Your task to perform on an android device: Open calendar and show me the fourth week of next month Image 0: 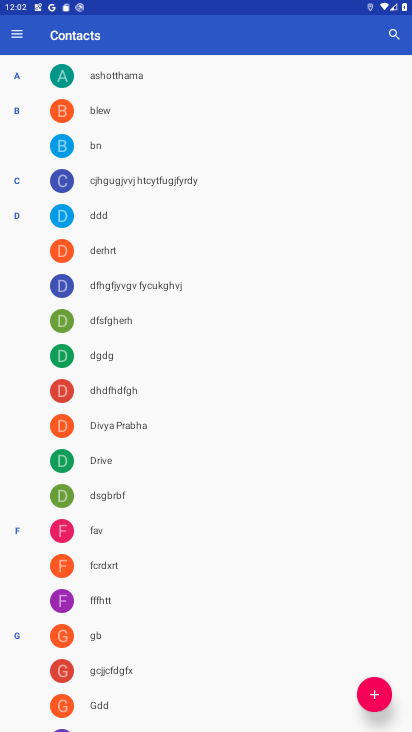
Step 0: press home button
Your task to perform on an android device: Open calendar and show me the fourth week of next month Image 1: 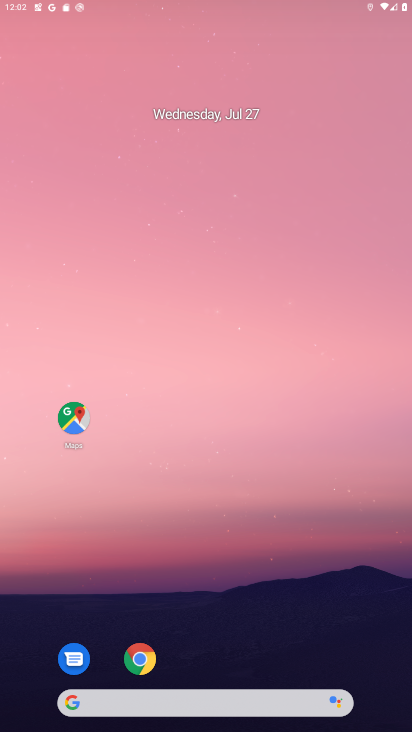
Step 1: drag from (247, 699) to (258, 3)
Your task to perform on an android device: Open calendar and show me the fourth week of next month Image 2: 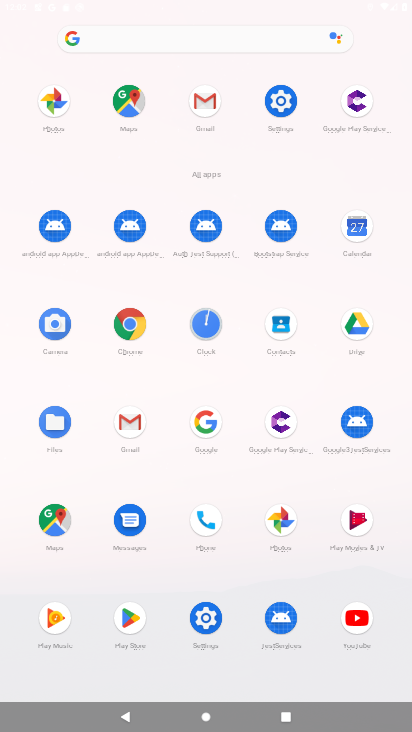
Step 2: click (352, 230)
Your task to perform on an android device: Open calendar and show me the fourth week of next month Image 3: 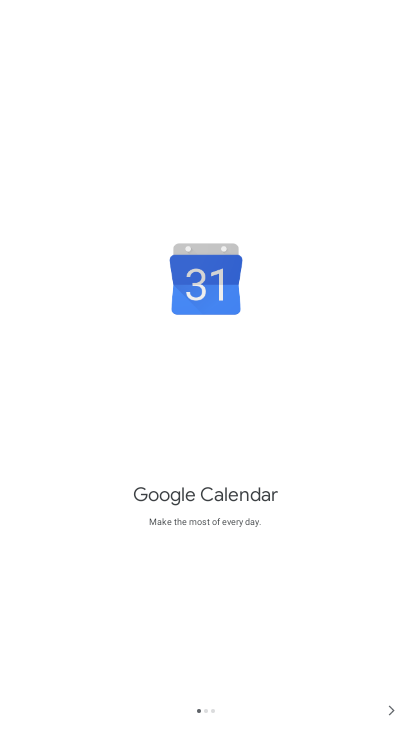
Step 3: click (389, 711)
Your task to perform on an android device: Open calendar and show me the fourth week of next month Image 4: 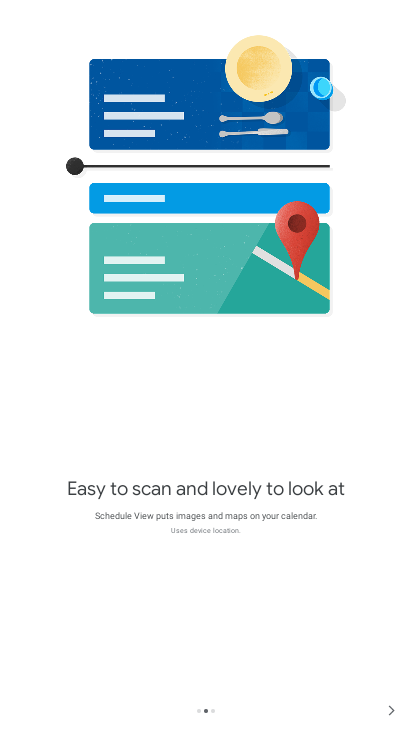
Step 4: click (389, 711)
Your task to perform on an android device: Open calendar and show me the fourth week of next month Image 5: 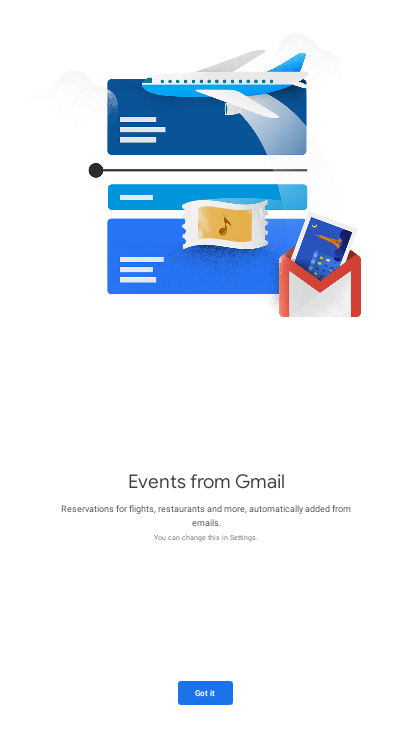
Step 5: click (218, 690)
Your task to perform on an android device: Open calendar and show me the fourth week of next month Image 6: 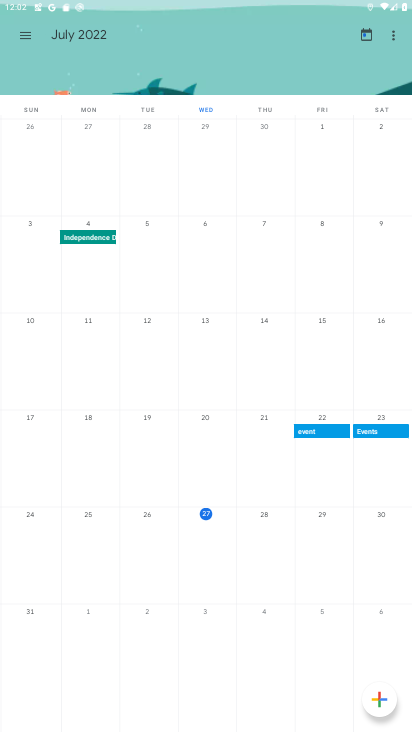
Step 6: drag from (368, 350) to (17, 349)
Your task to perform on an android device: Open calendar and show me the fourth week of next month Image 7: 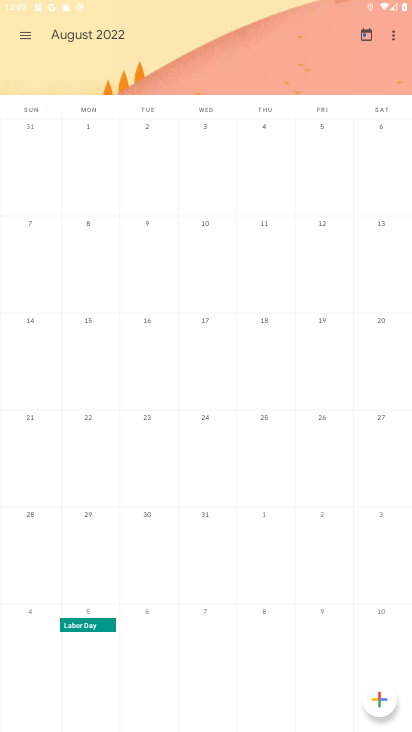
Step 7: click (209, 432)
Your task to perform on an android device: Open calendar and show me the fourth week of next month Image 8: 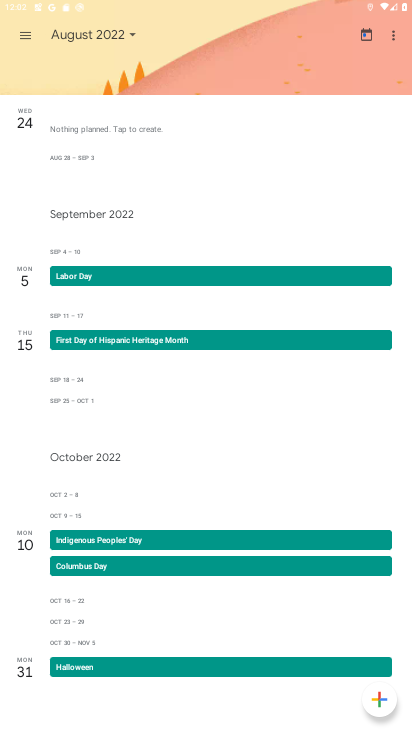
Step 8: task complete